Your task to perform on an android device: Turn off the flashlight Image 0: 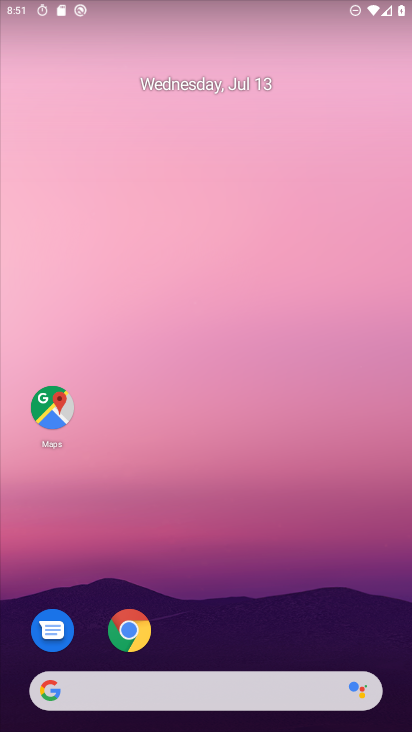
Step 0: drag from (327, 632) to (127, 33)
Your task to perform on an android device: Turn off the flashlight Image 1: 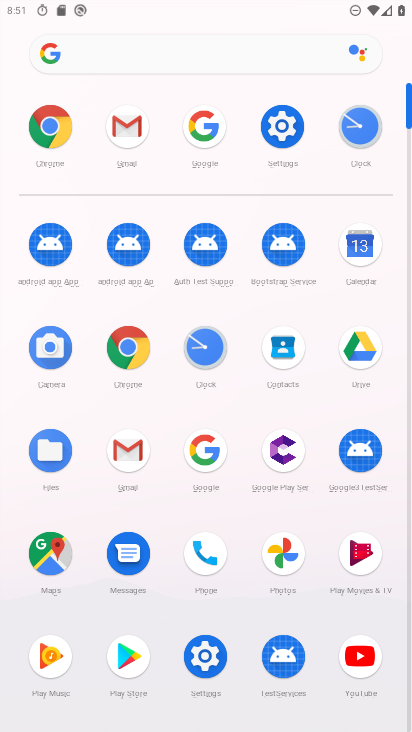
Step 1: click (286, 141)
Your task to perform on an android device: Turn off the flashlight Image 2: 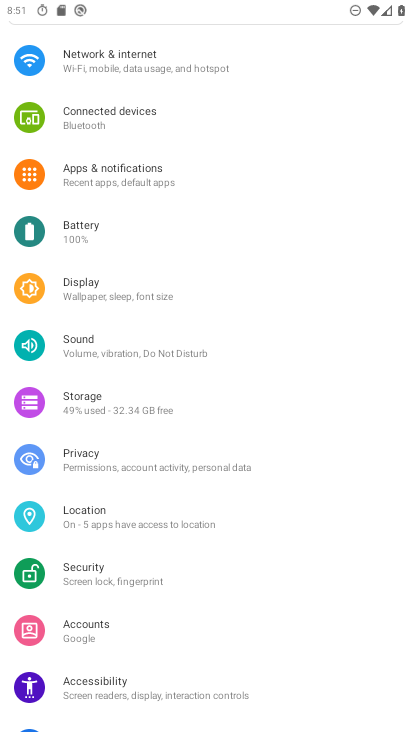
Step 2: task complete